Your task to perform on an android device: When is my next appointment? Image 0: 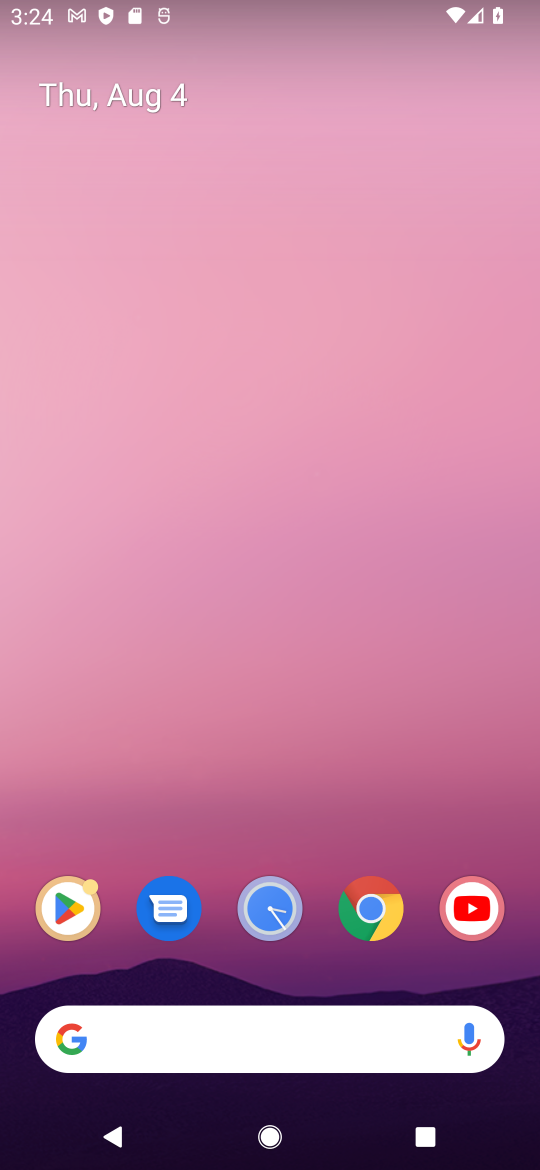
Step 0: drag from (242, 958) to (294, 29)
Your task to perform on an android device: When is my next appointment? Image 1: 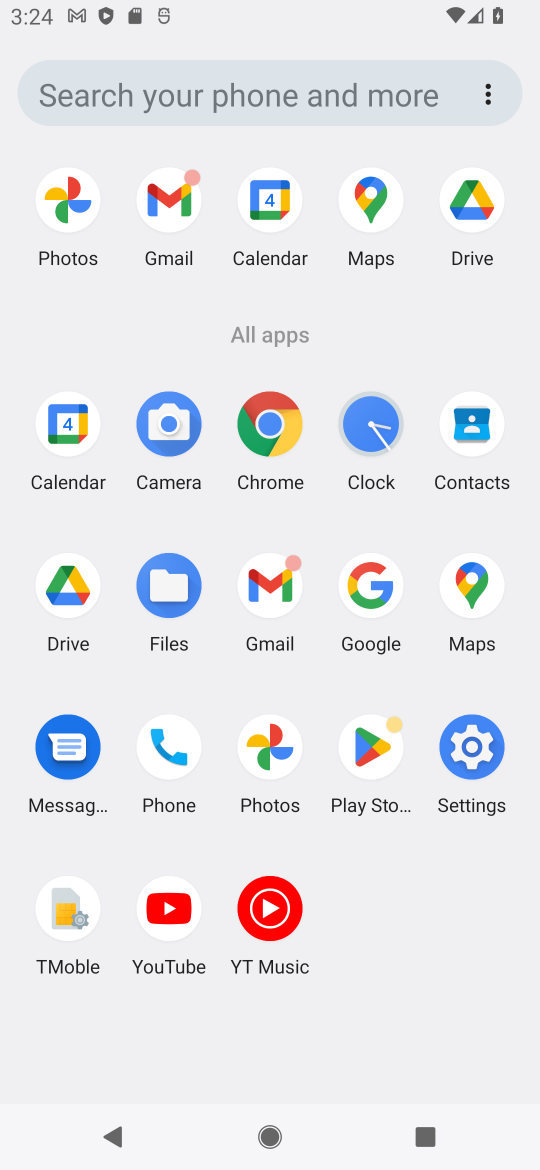
Step 1: click (77, 451)
Your task to perform on an android device: When is my next appointment? Image 2: 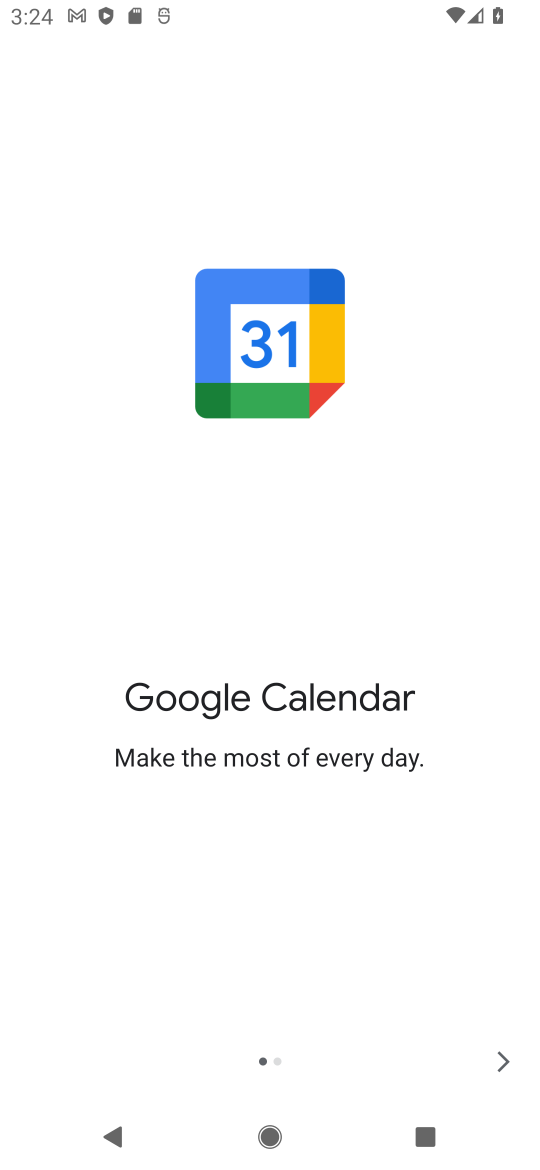
Step 2: click (480, 1060)
Your task to perform on an android device: When is my next appointment? Image 3: 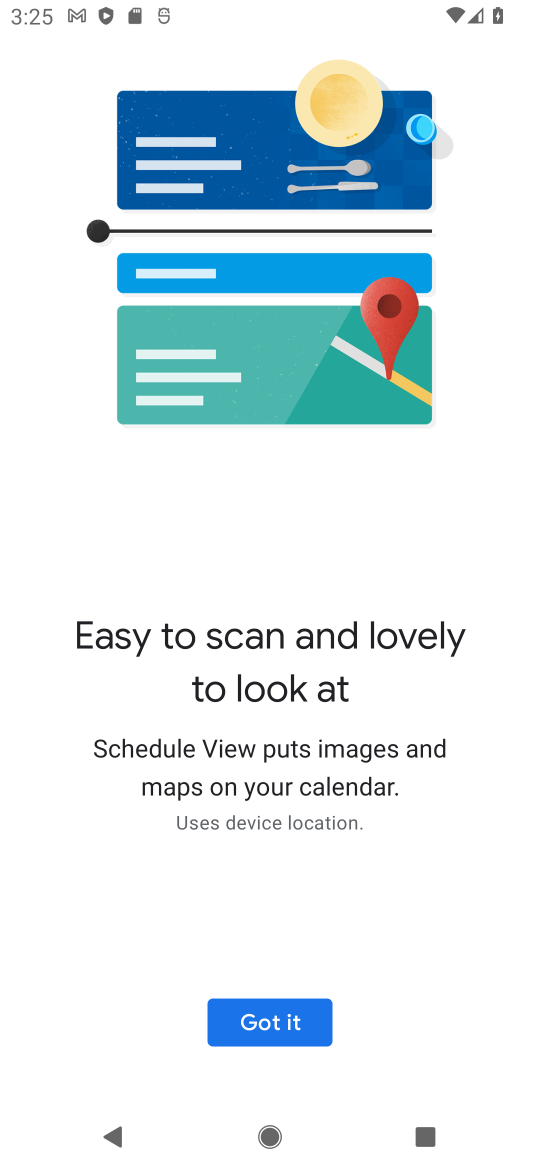
Step 3: click (480, 1060)
Your task to perform on an android device: When is my next appointment? Image 4: 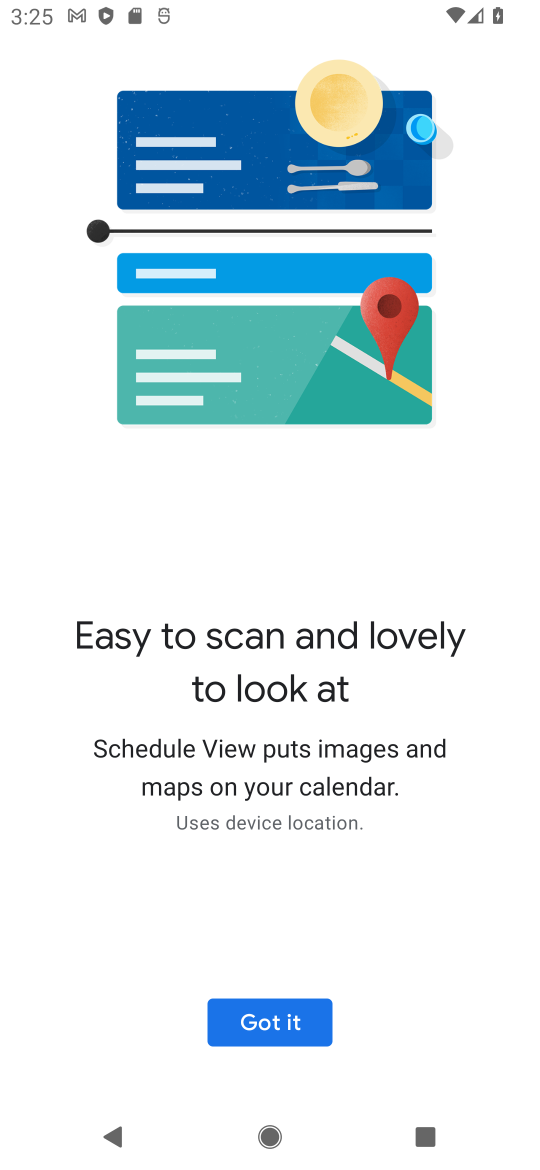
Step 4: click (258, 1018)
Your task to perform on an android device: When is my next appointment? Image 5: 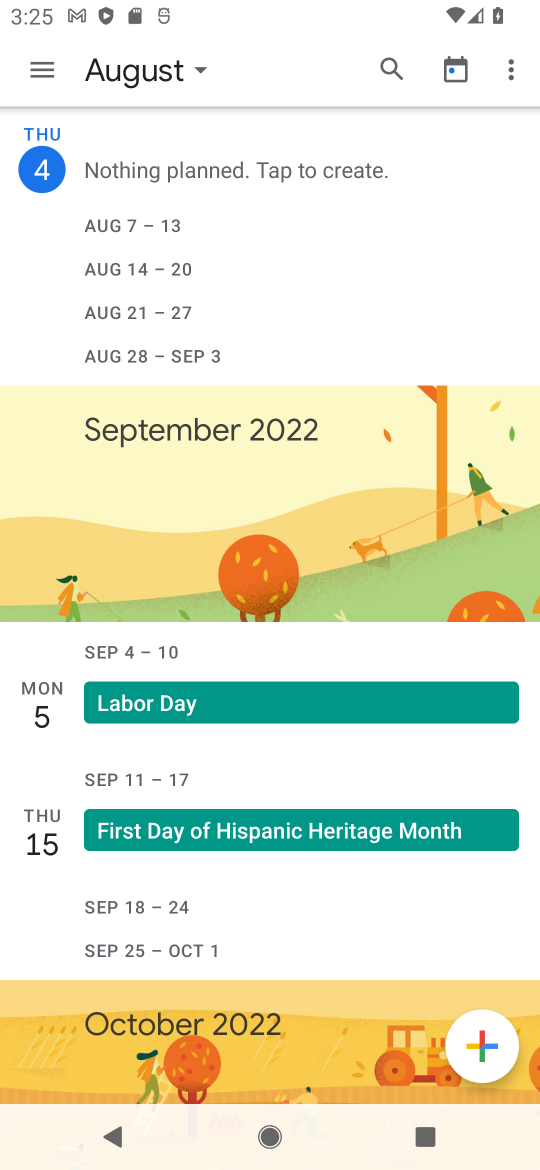
Step 5: task complete